Your task to perform on an android device: turn off location Image 0: 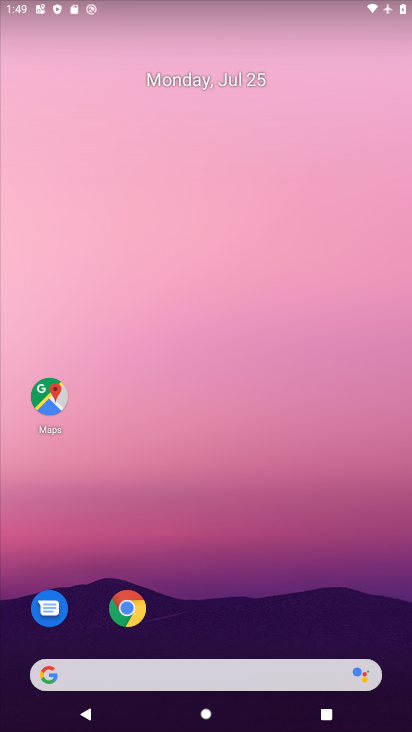
Step 0: drag from (203, 596) to (242, 267)
Your task to perform on an android device: turn off location Image 1: 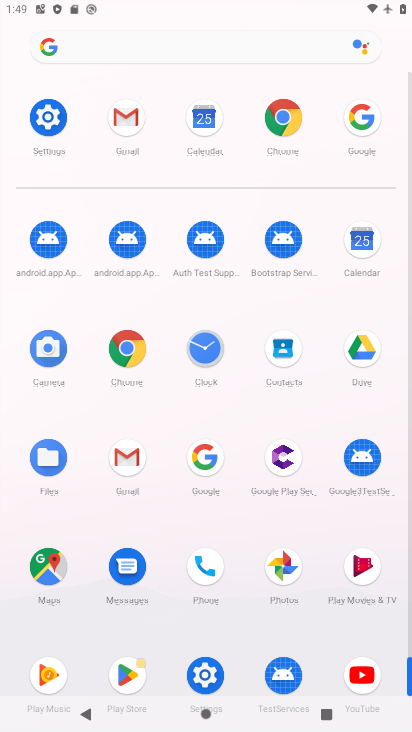
Step 1: click (63, 133)
Your task to perform on an android device: turn off location Image 2: 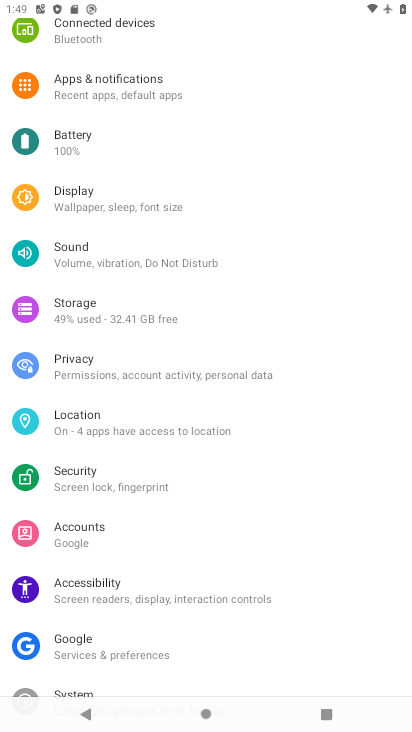
Step 2: click (116, 420)
Your task to perform on an android device: turn off location Image 3: 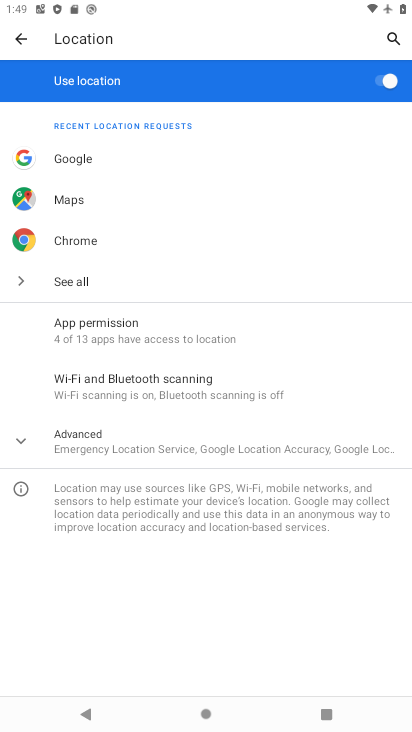
Step 3: click (270, 87)
Your task to perform on an android device: turn off location Image 4: 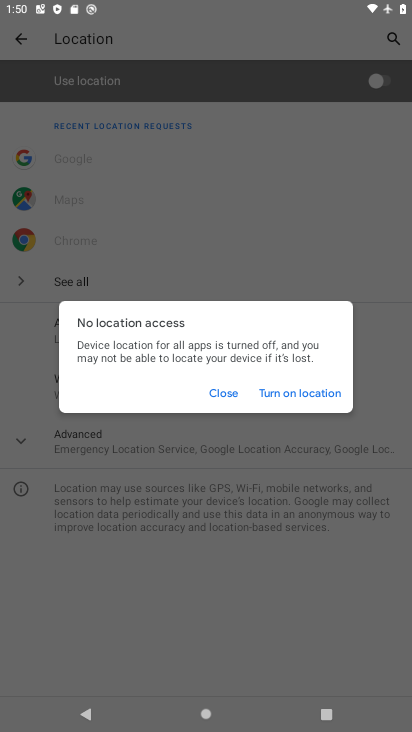
Step 4: click (217, 389)
Your task to perform on an android device: turn off location Image 5: 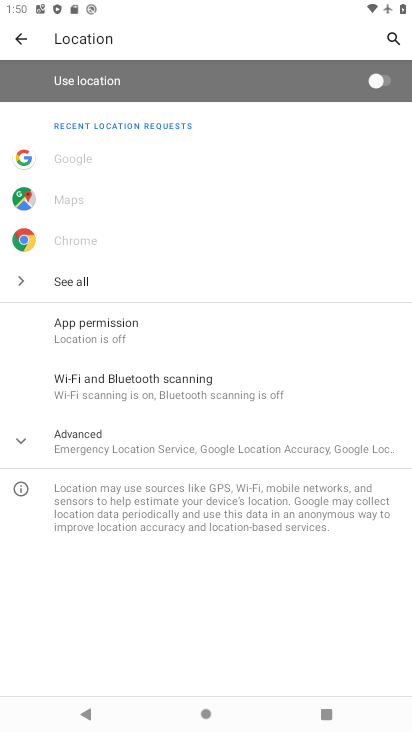
Step 5: task complete